Your task to perform on an android device: Open the phone app and click the voicemail tab. Image 0: 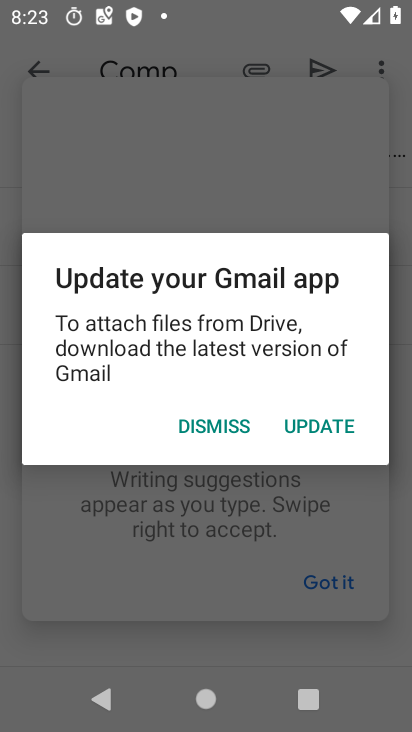
Step 0: press home button
Your task to perform on an android device: Open the phone app and click the voicemail tab. Image 1: 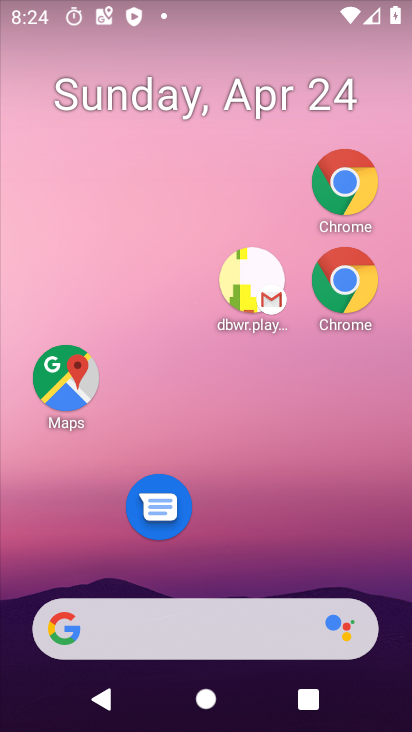
Step 1: drag from (228, 715) to (183, 92)
Your task to perform on an android device: Open the phone app and click the voicemail tab. Image 2: 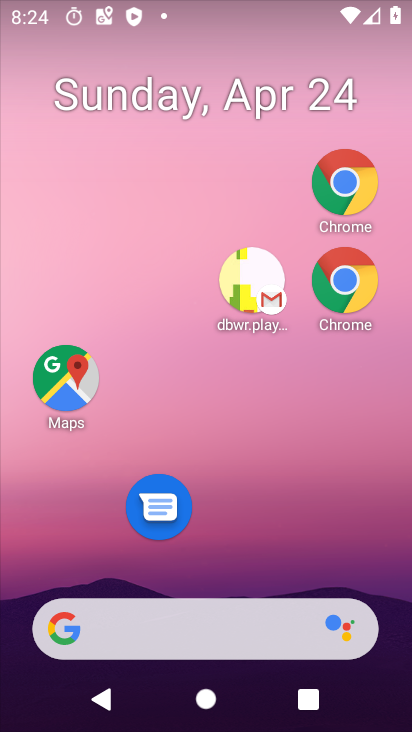
Step 2: drag from (270, 694) to (250, 155)
Your task to perform on an android device: Open the phone app and click the voicemail tab. Image 3: 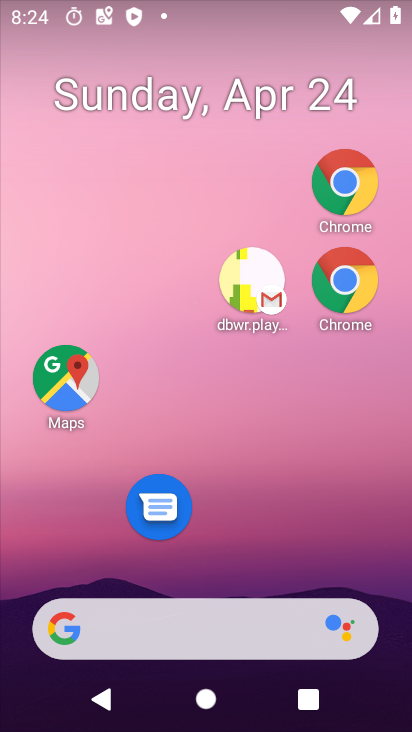
Step 3: drag from (342, 661) to (197, 32)
Your task to perform on an android device: Open the phone app and click the voicemail tab. Image 4: 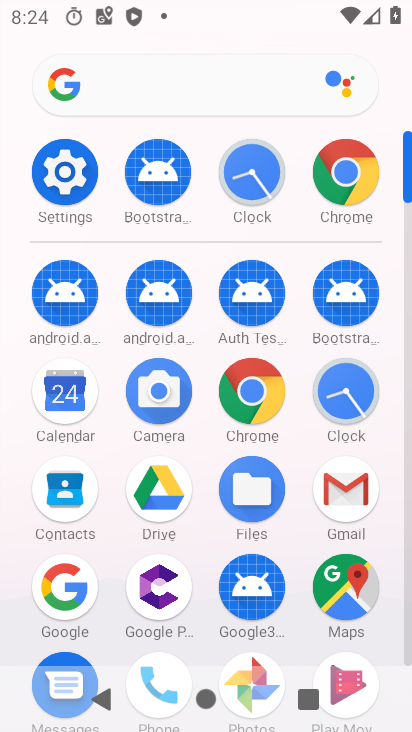
Step 4: click (147, 8)
Your task to perform on an android device: Open the phone app and click the voicemail tab. Image 5: 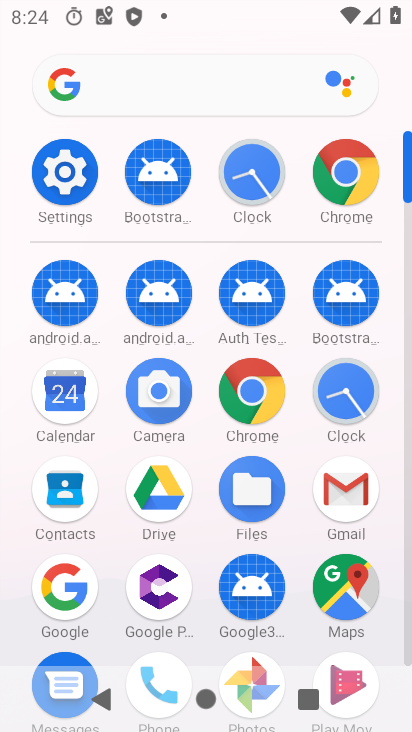
Step 5: click (164, 18)
Your task to perform on an android device: Open the phone app and click the voicemail tab. Image 6: 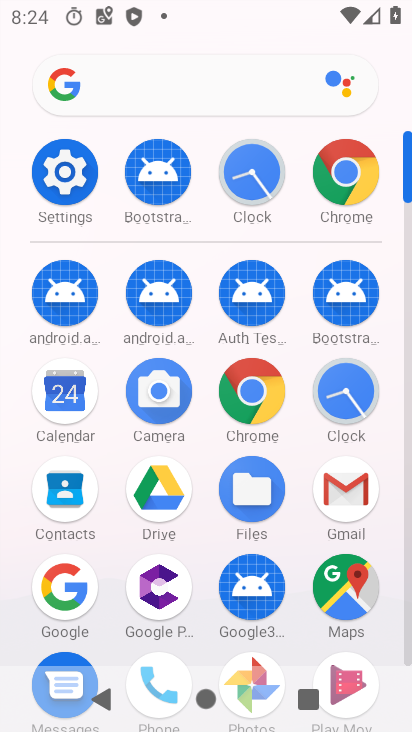
Step 6: click (165, 672)
Your task to perform on an android device: Open the phone app and click the voicemail tab. Image 7: 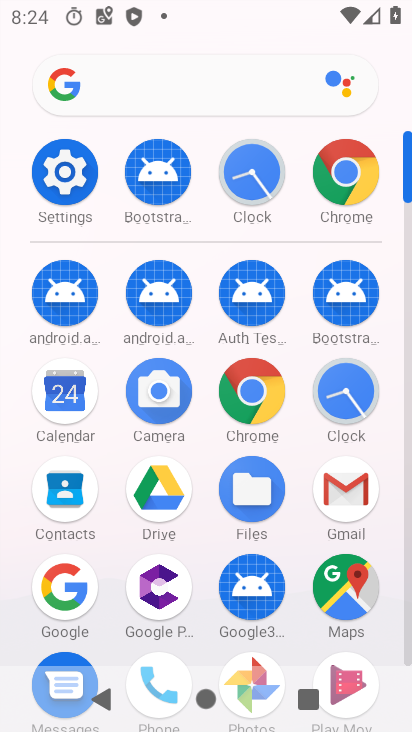
Step 7: click (159, 656)
Your task to perform on an android device: Open the phone app and click the voicemail tab. Image 8: 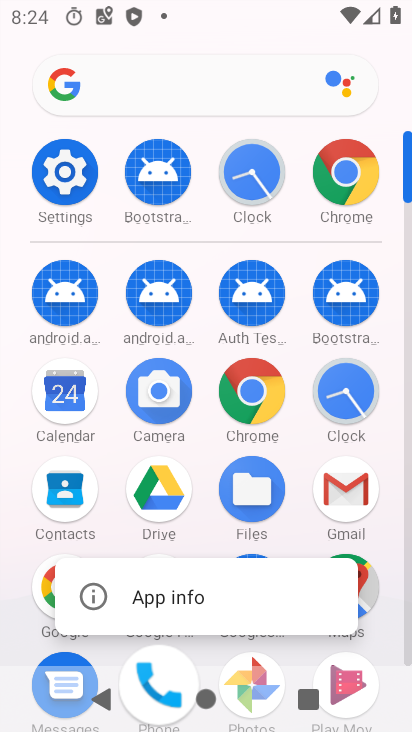
Step 8: click (158, 633)
Your task to perform on an android device: Open the phone app and click the voicemail tab. Image 9: 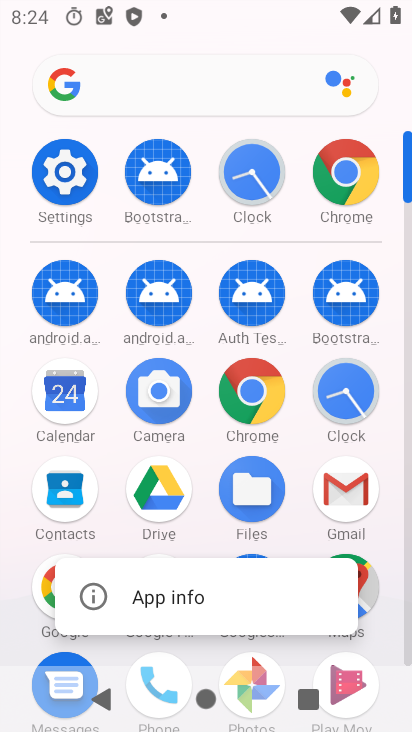
Step 9: click (406, 597)
Your task to perform on an android device: Open the phone app and click the voicemail tab. Image 10: 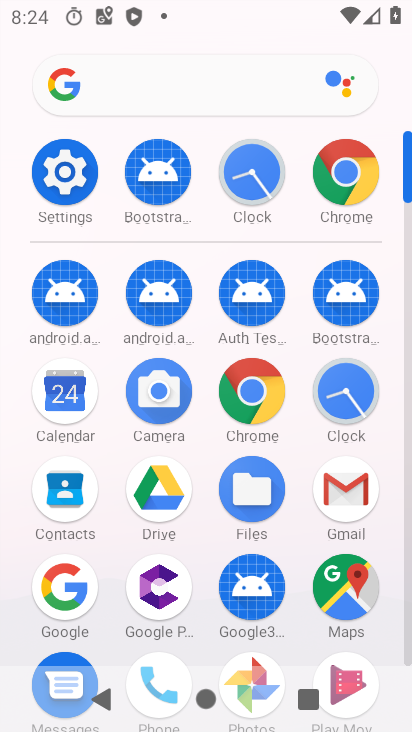
Step 10: drag from (258, 559) to (225, 114)
Your task to perform on an android device: Open the phone app and click the voicemail tab. Image 11: 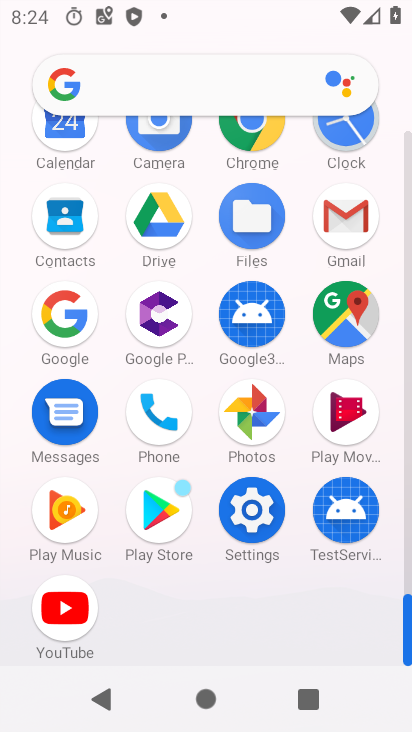
Step 11: click (152, 410)
Your task to perform on an android device: Open the phone app and click the voicemail tab. Image 12: 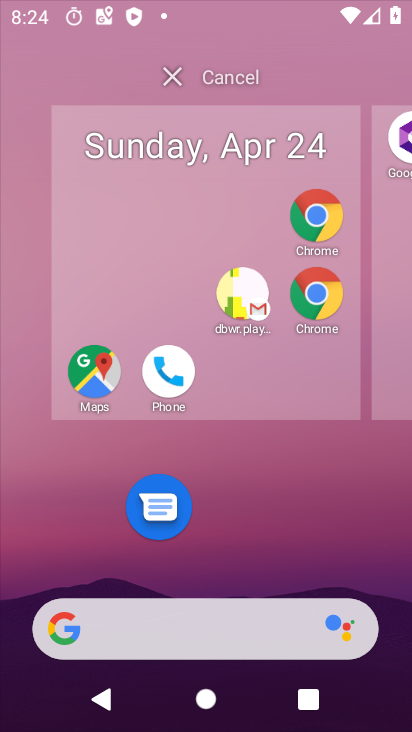
Step 12: click (152, 420)
Your task to perform on an android device: Open the phone app and click the voicemail tab. Image 13: 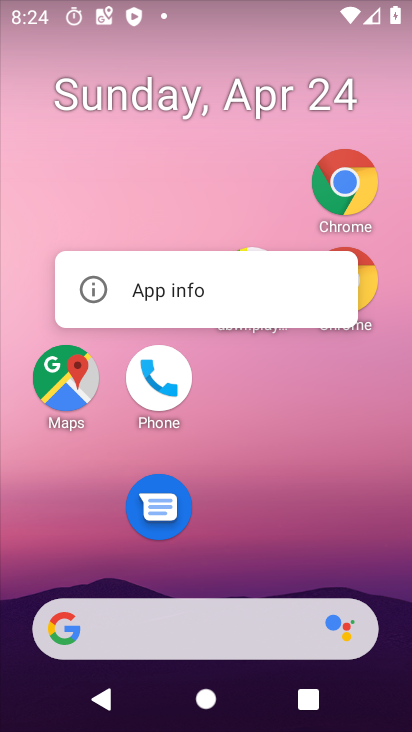
Step 13: click (153, 371)
Your task to perform on an android device: Open the phone app and click the voicemail tab. Image 14: 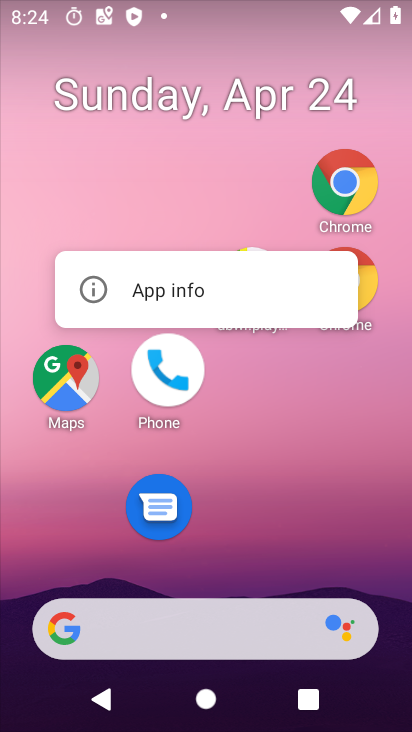
Step 14: click (162, 363)
Your task to perform on an android device: Open the phone app and click the voicemail tab. Image 15: 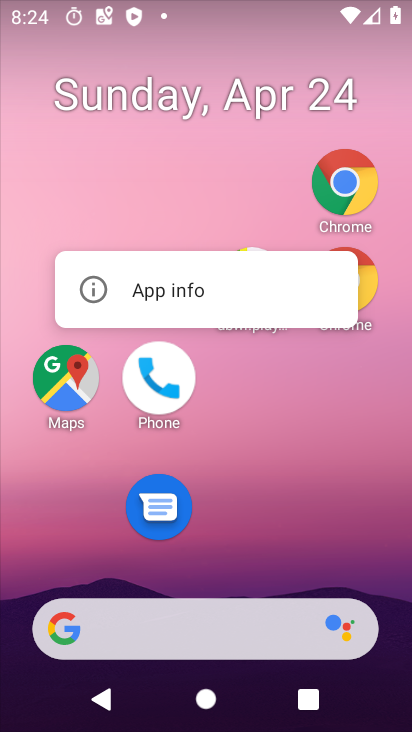
Step 15: click (162, 363)
Your task to perform on an android device: Open the phone app and click the voicemail tab. Image 16: 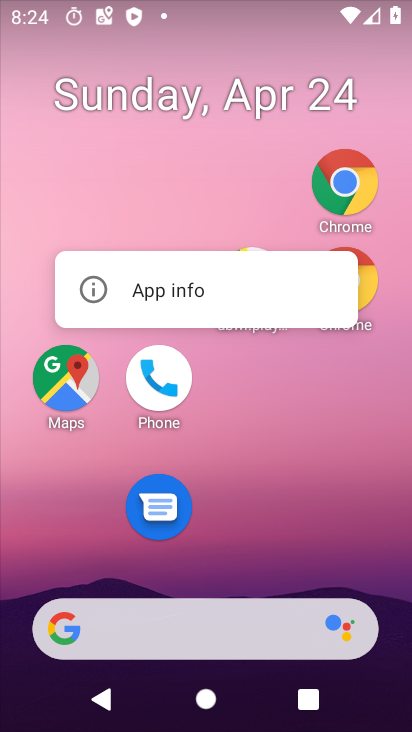
Step 16: click (162, 363)
Your task to perform on an android device: Open the phone app and click the voicemail tab. Image 17: 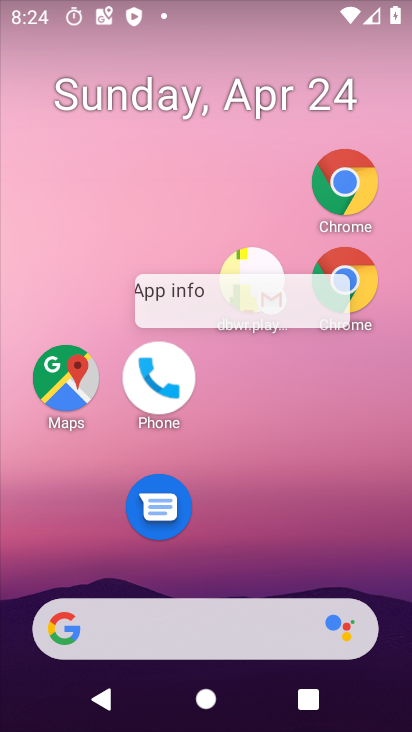
Step 17: drag from (162, 363) to (157, 401)
Your task to perform on an android device: Open the phone app and click the voicemail tab. Image 18: 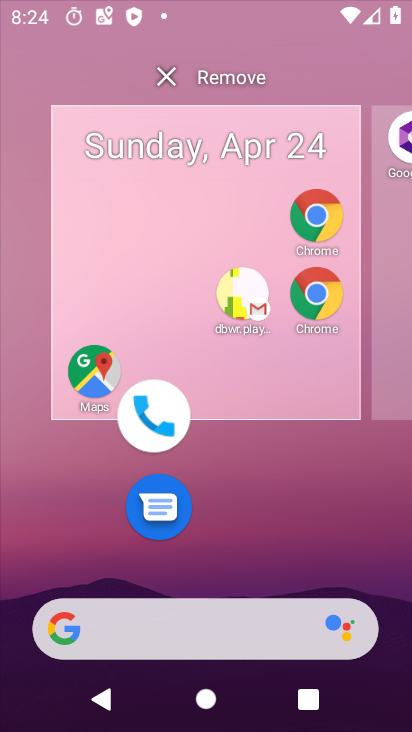
Step 18: click (156, 400)
Your task to perform on an android device: Open the phone app and click the voicemail tab. Image 19: 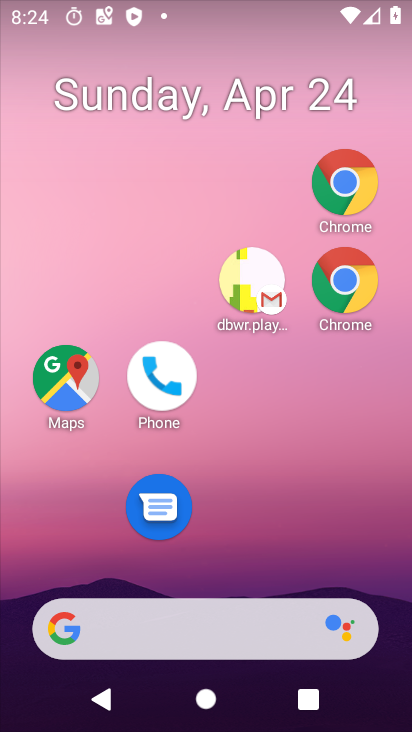
Step 19: click (150, 432)
Your task to perform on an android device: Open the phone app and click the voicemail tab. Image 20: 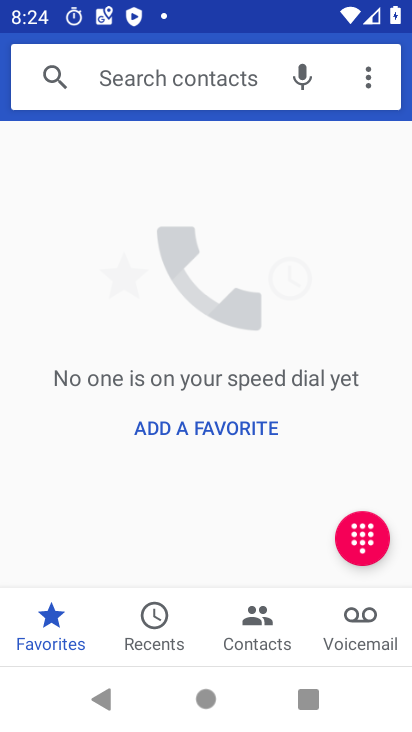
Step 20: click (362, 626)
Your task to perform on an android device: Open the phone app and click the voicemail tab. Image 21: 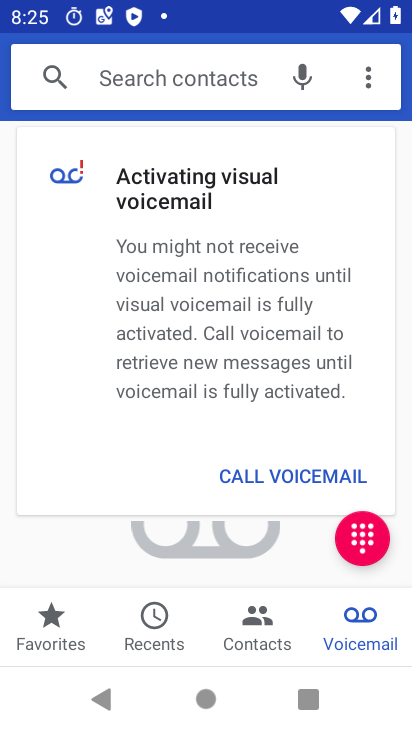
Step 21: task complete